Your task to perform on an android device: see creations saved in the google photos Image 0: 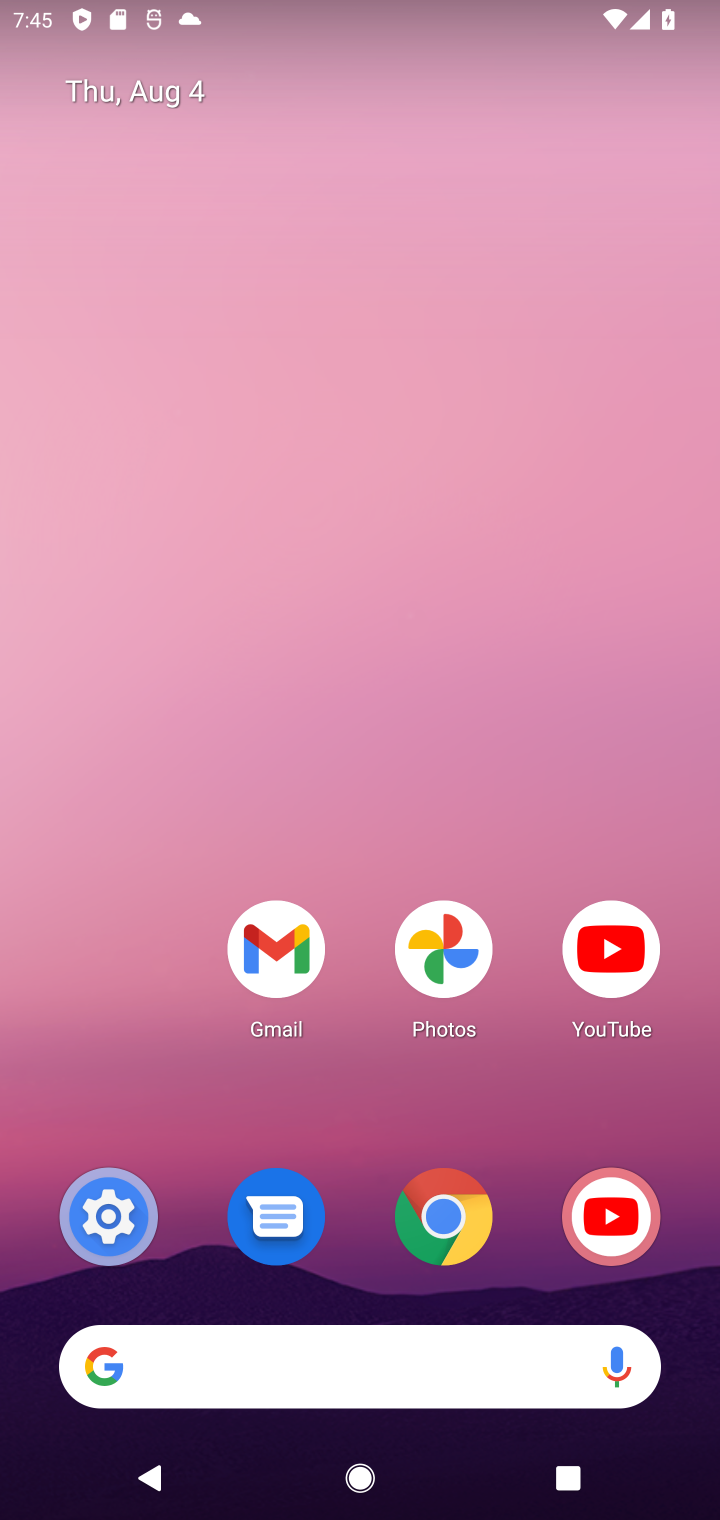
Step 0: drag from (364, 876) to (359, 19)
Your task to perform on an android device: see creations saved in the google photos Image 1: 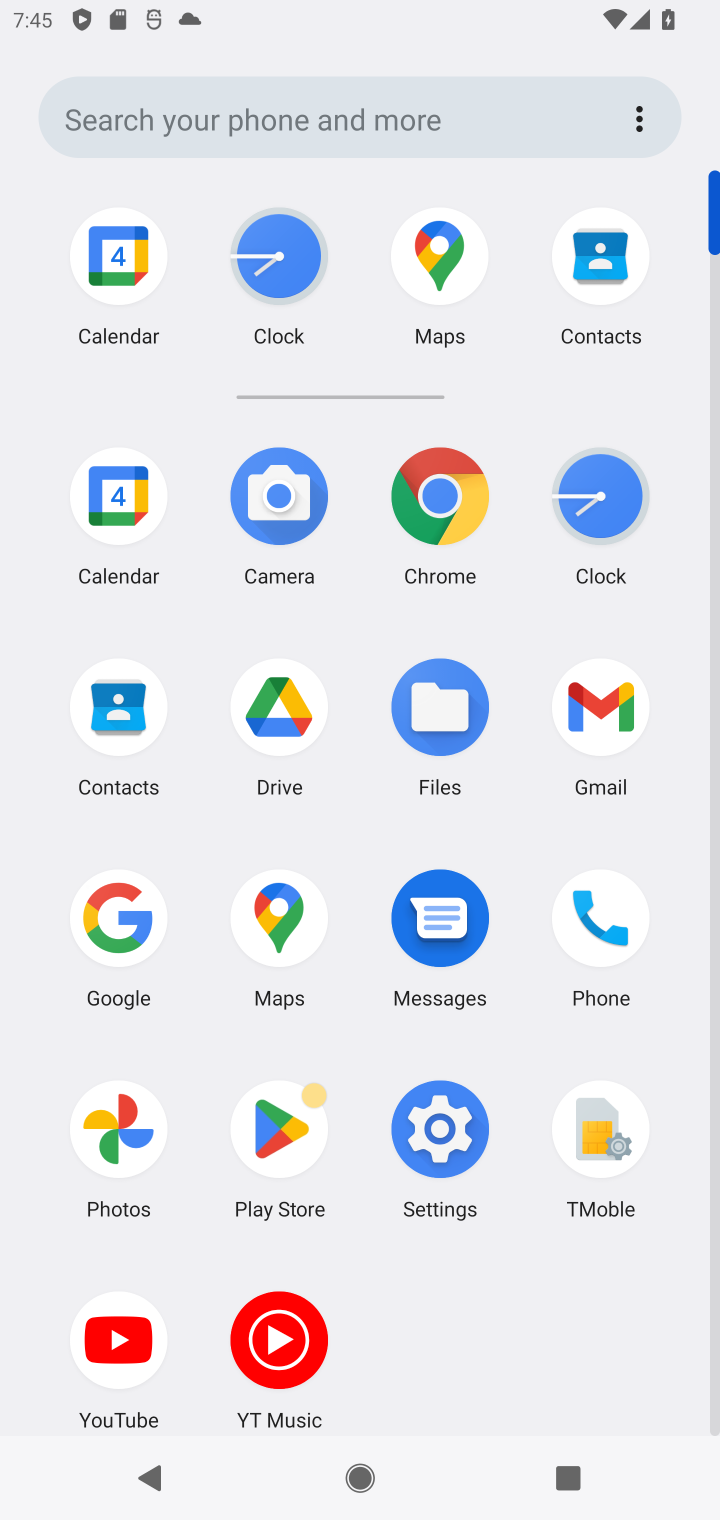
Step 1: click (123, 1131)
Your task to perform on an android device: see creations saved in the google photos Image 2: 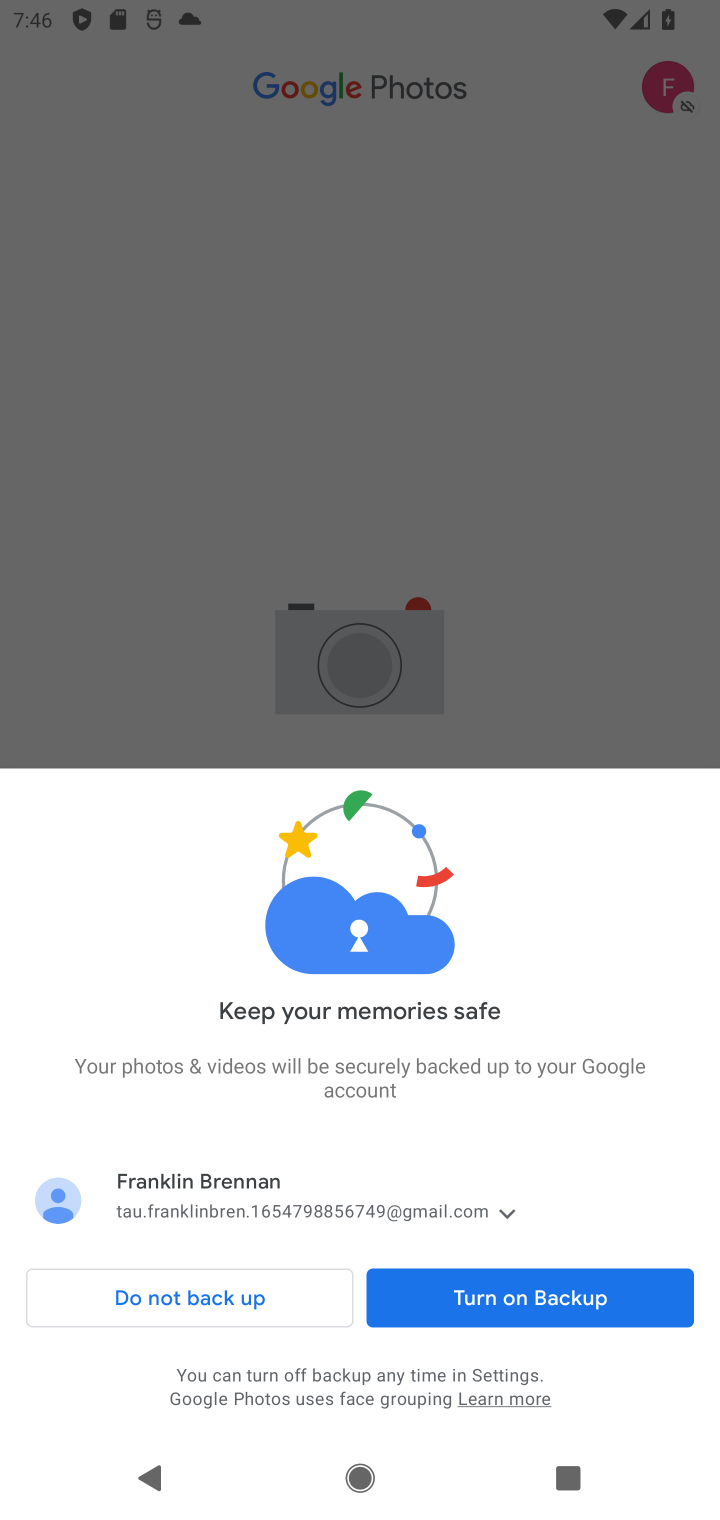
Step 2: press home button
Your task to perform on an android device: see creations saved in the google photos Image 3: 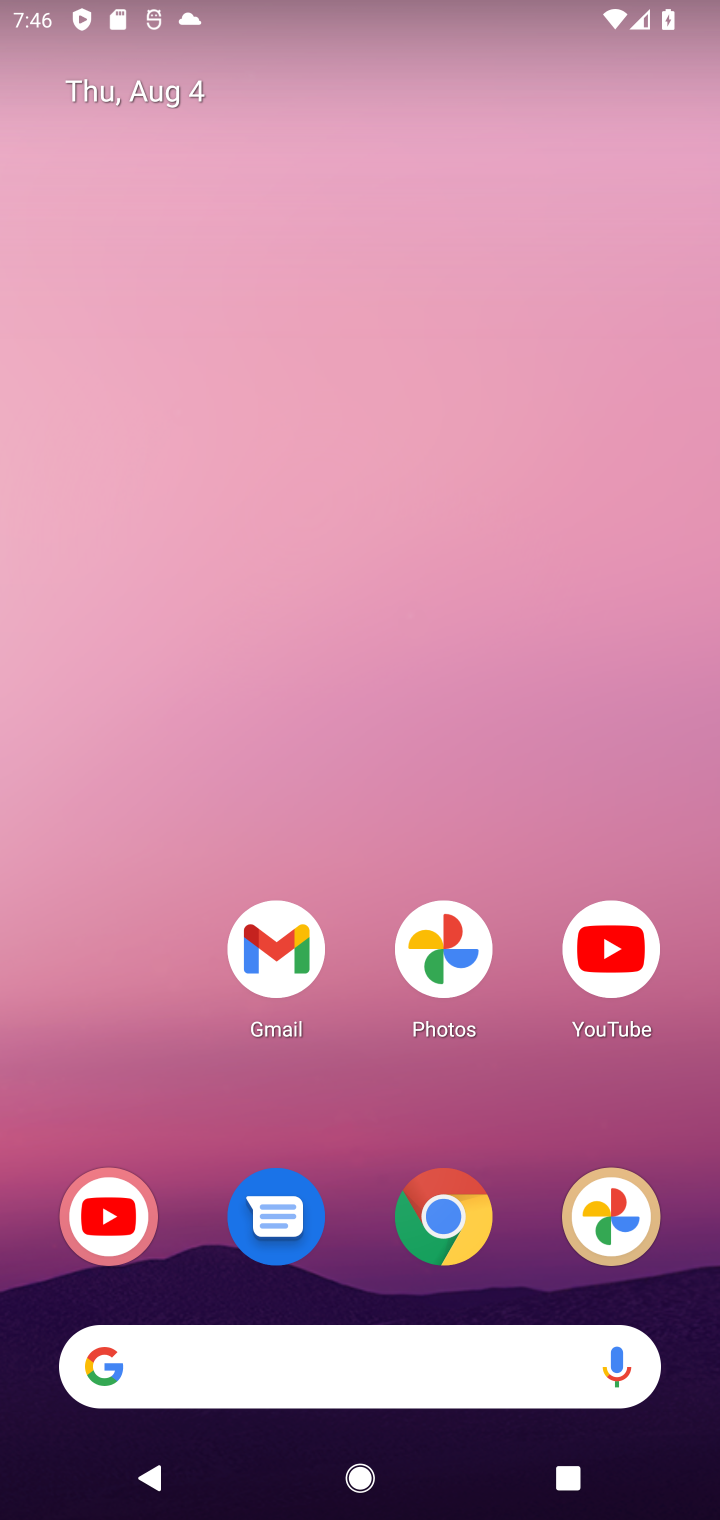
Step 3: drag from (336, 1303) to (329, 146)
Your task to perform on an android device: see creations saved in the google photos Image 4: 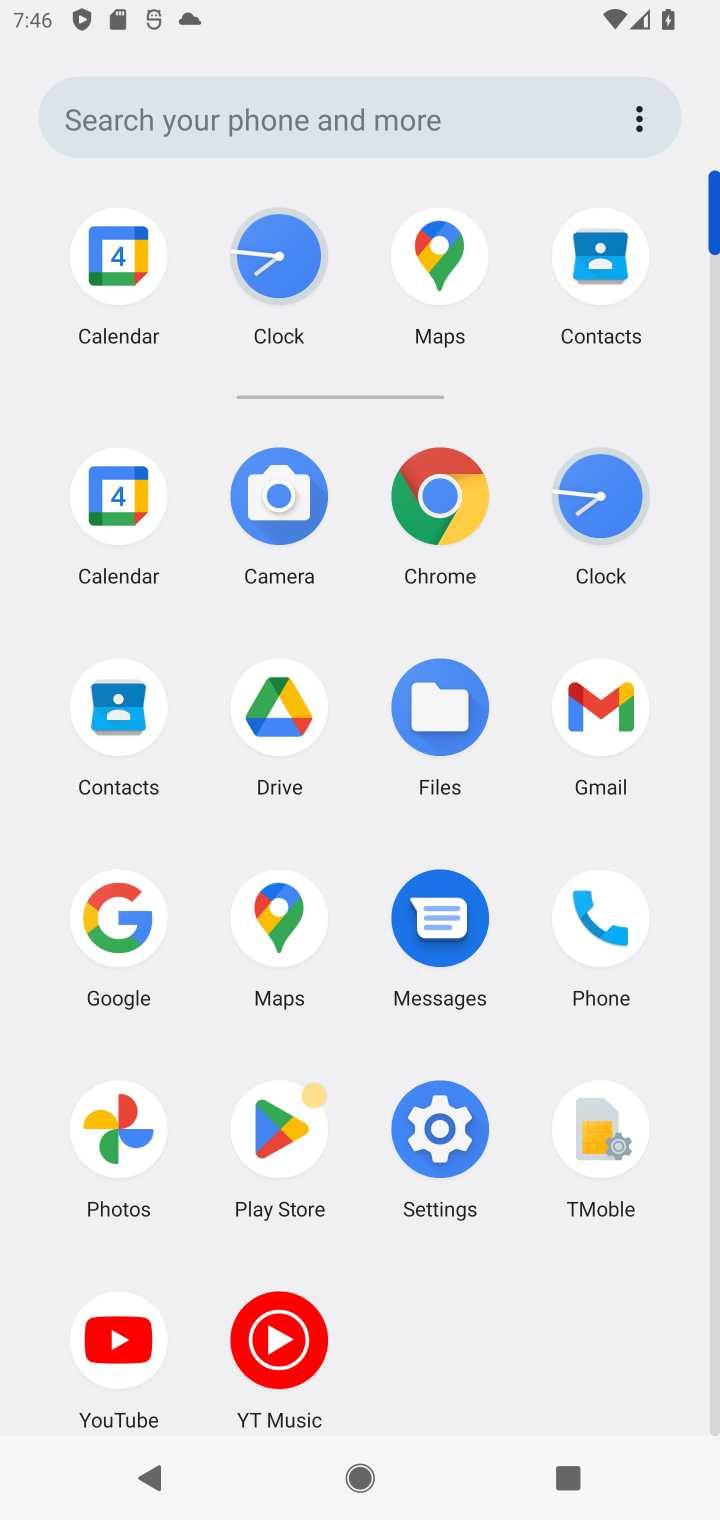
Step 4: click (126, 1128)
Your task to perform on an android device: see creations saved in the google photos Image 5: 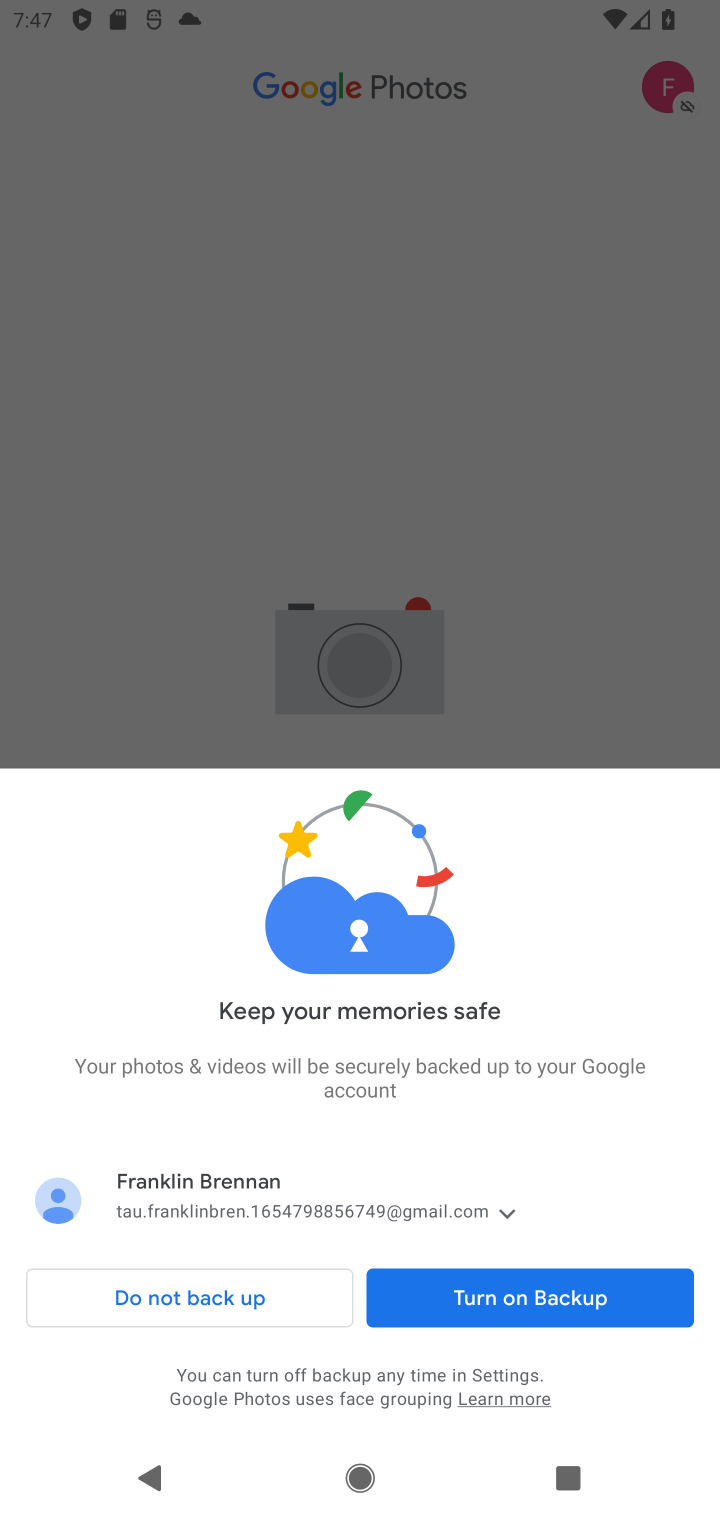
Step 5: click (194, 1301)
Your task to perform on an android device: see creations saved in the google photos Image 6: 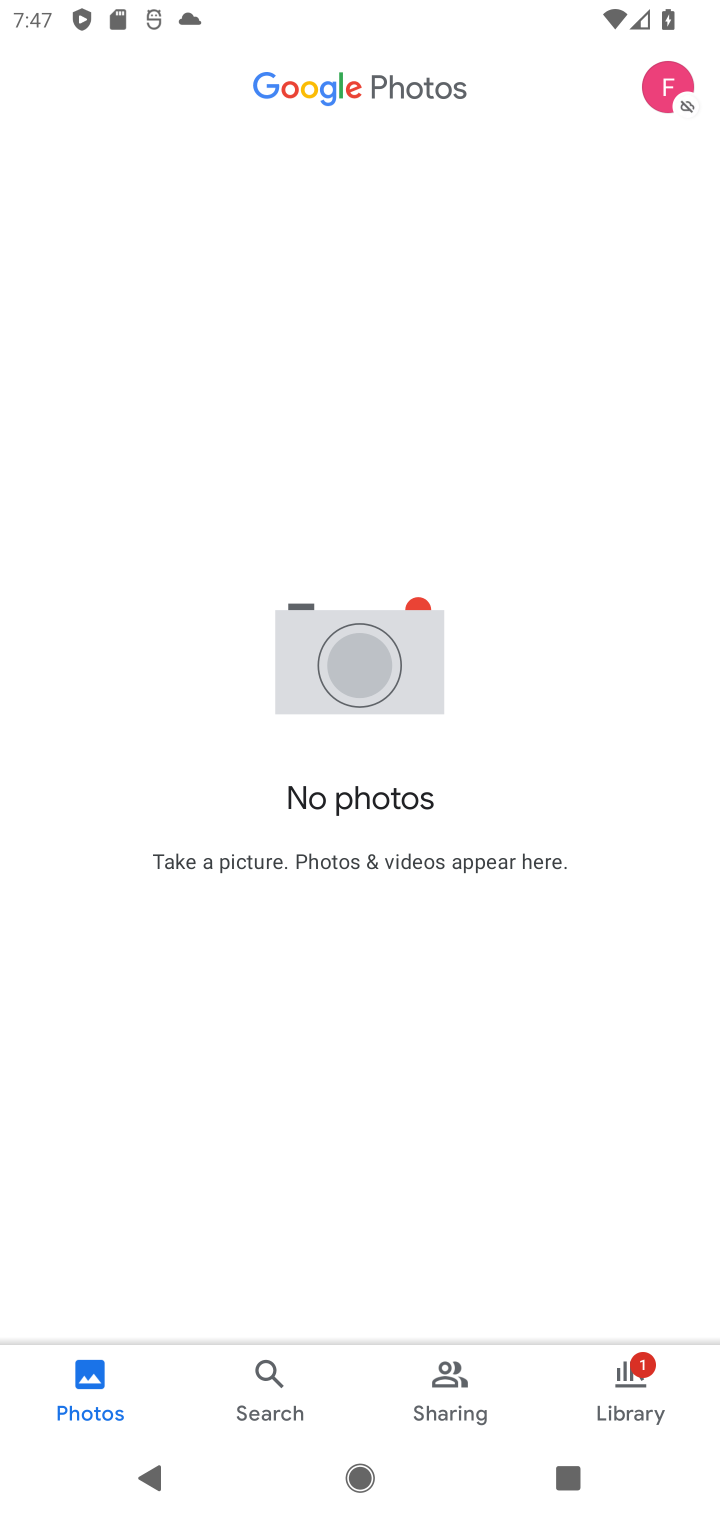
Step 6: click (252, 1360)
Your task to perform on an android device: see creations saved in the google photos Image 7: 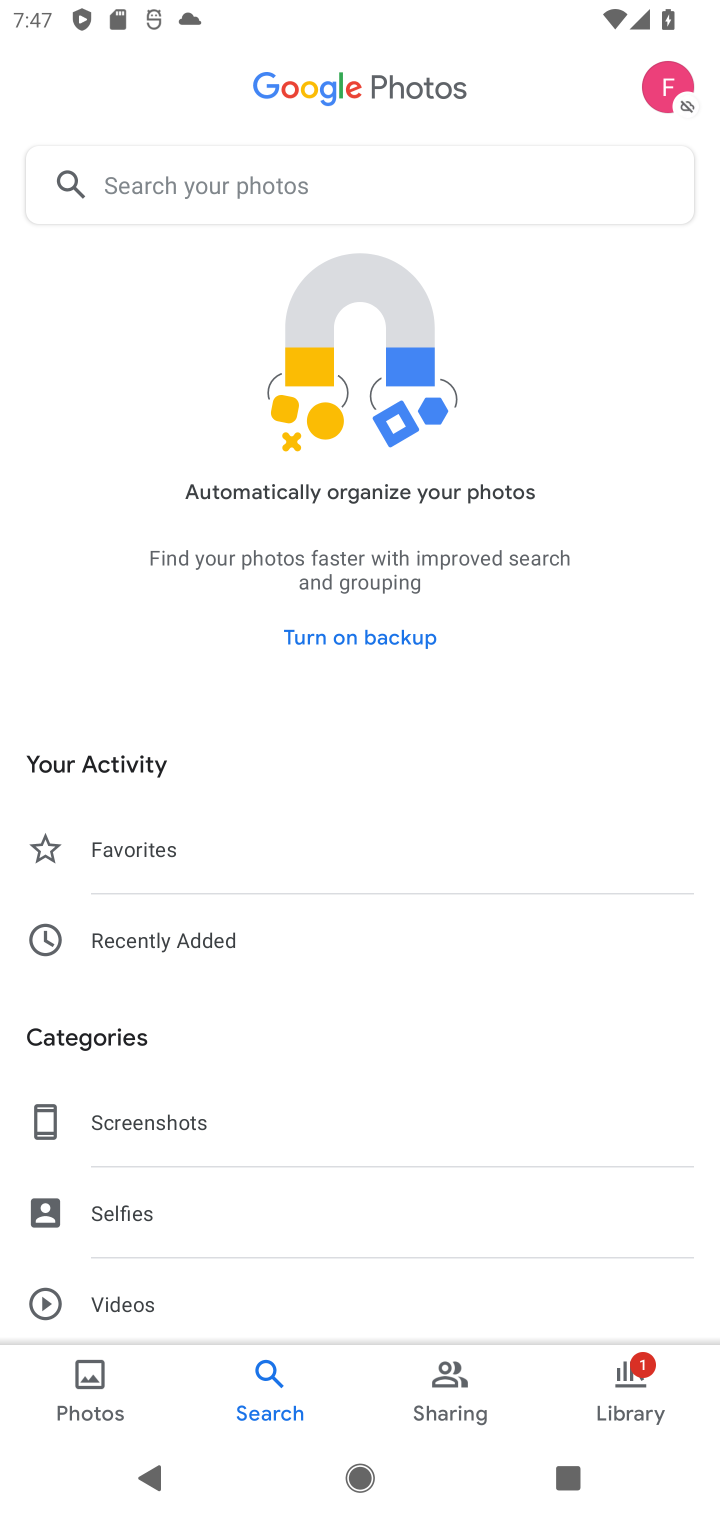
Step 7: click (368, 185)
Your task to perform on an android device: see creations saved in the google photos Image 8: 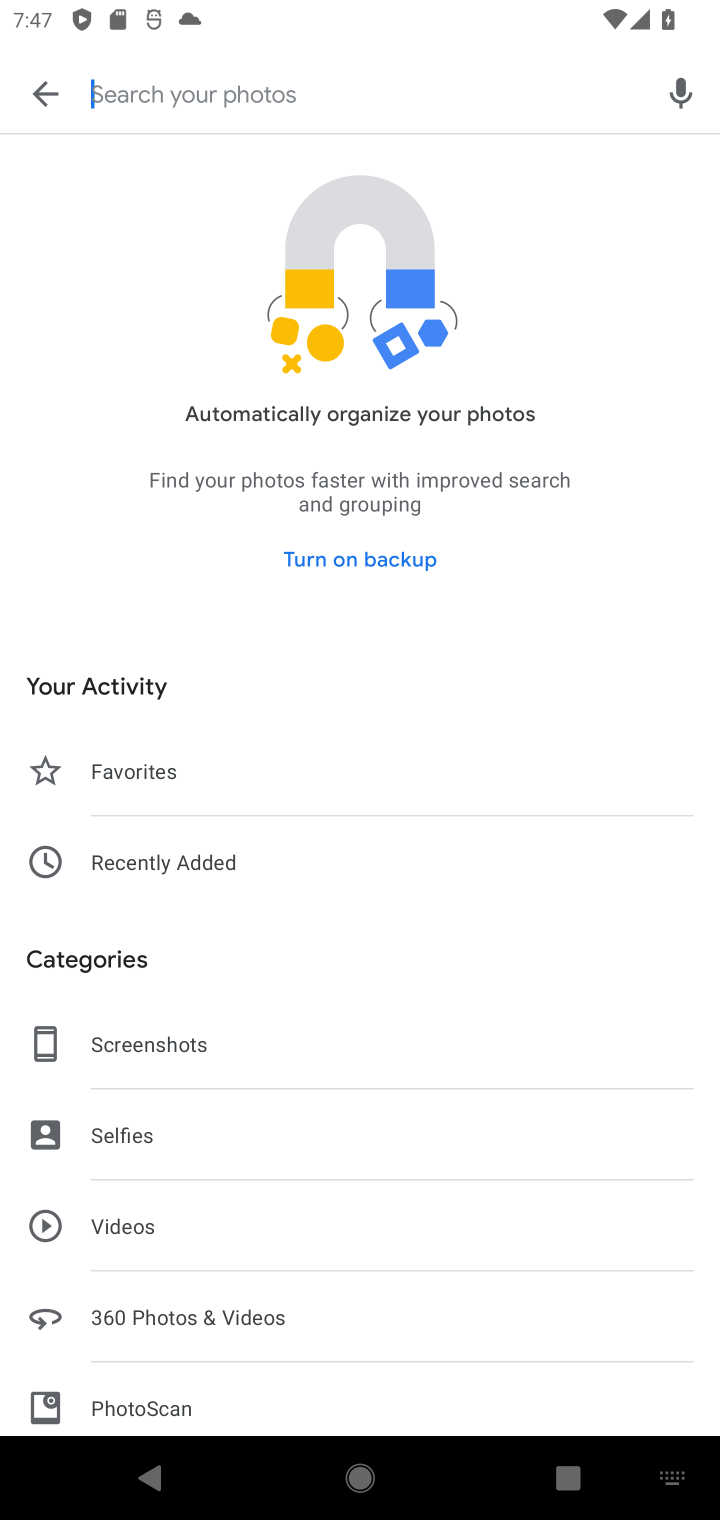
Step 8: drag from (177, 1253) to (177, 554)
Your task to perform on an android device: see creations saved in the google photos Image 9: 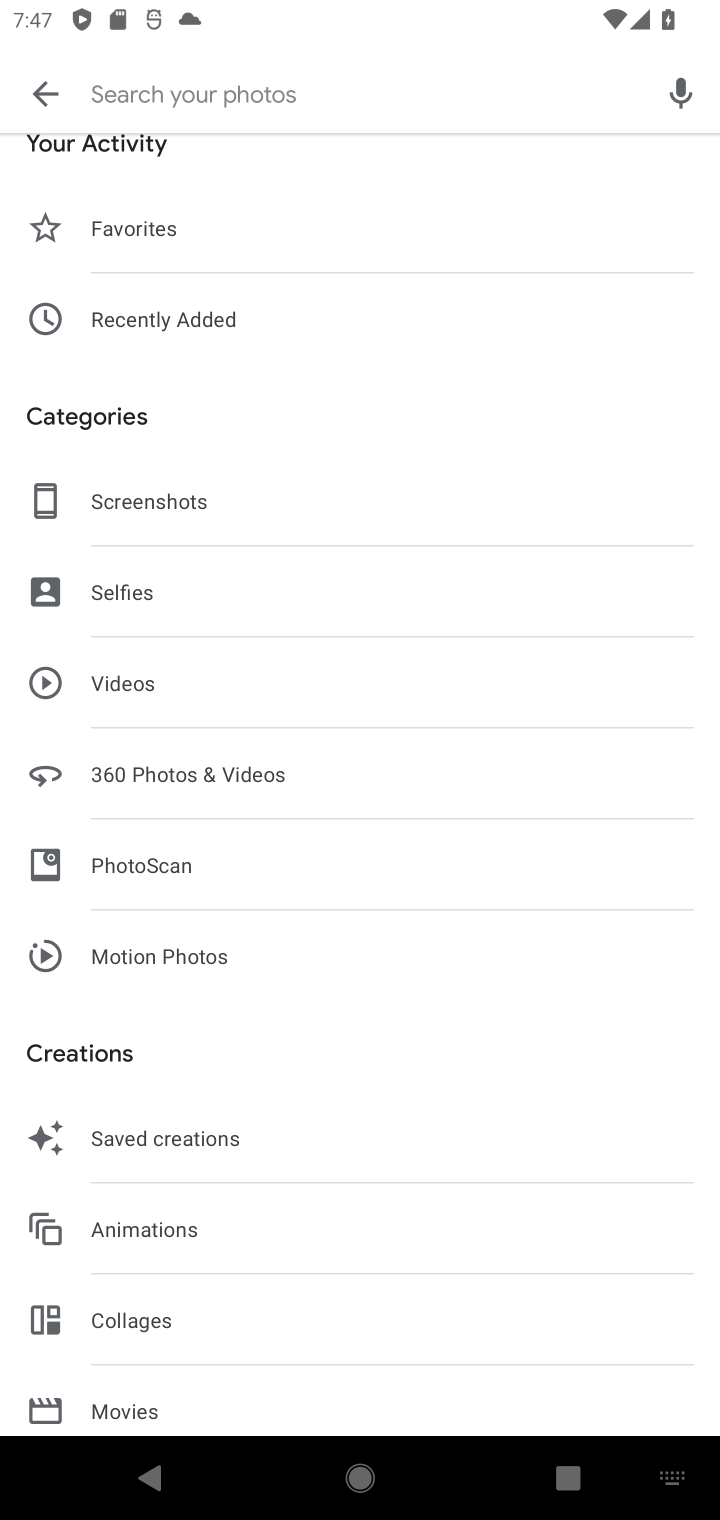
Step 9: drag from (252, 1319) to (255, 894)
Your task to perform on an android device: see creations saved in the google photos Image 10: 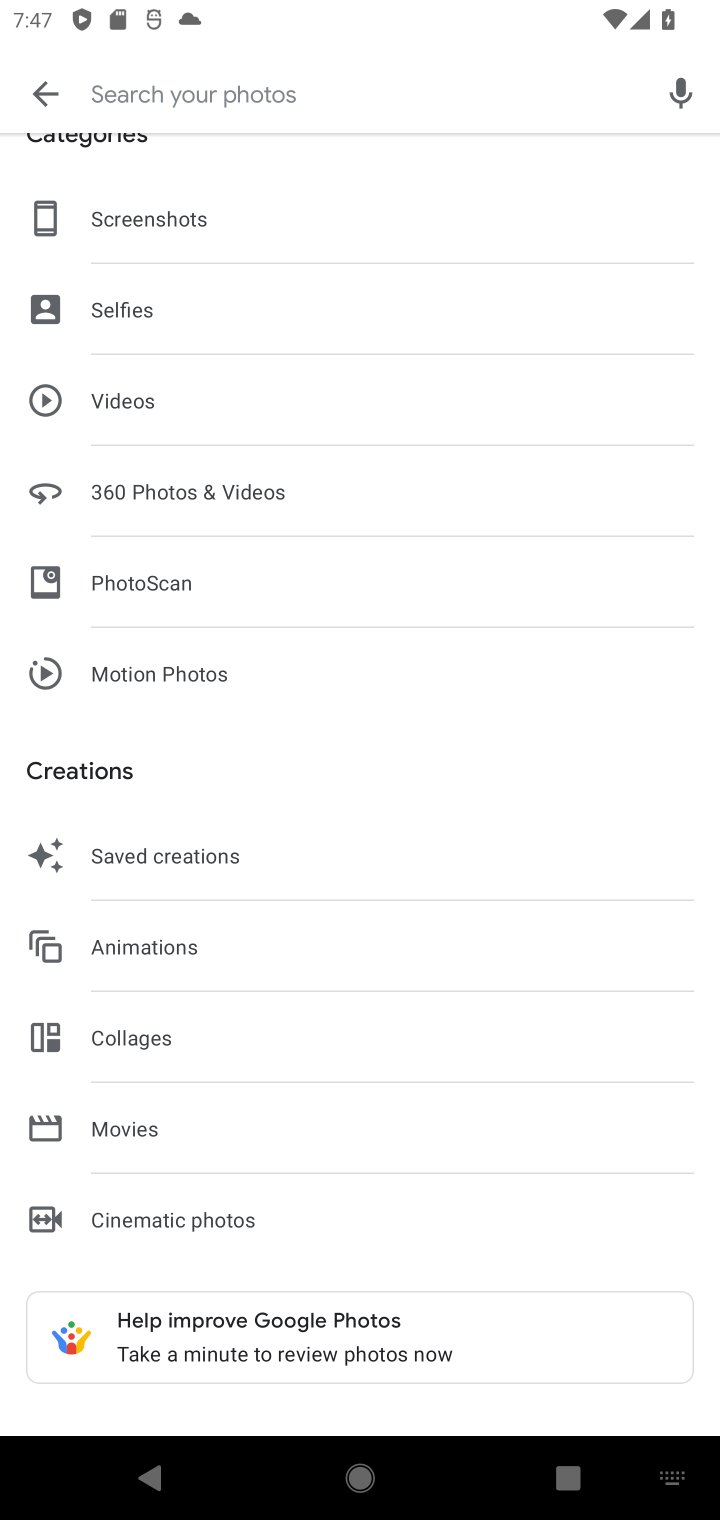
Step 10: click (183, 863)
Your task to perform on an android device: see creations saved in the google photos Image 11: 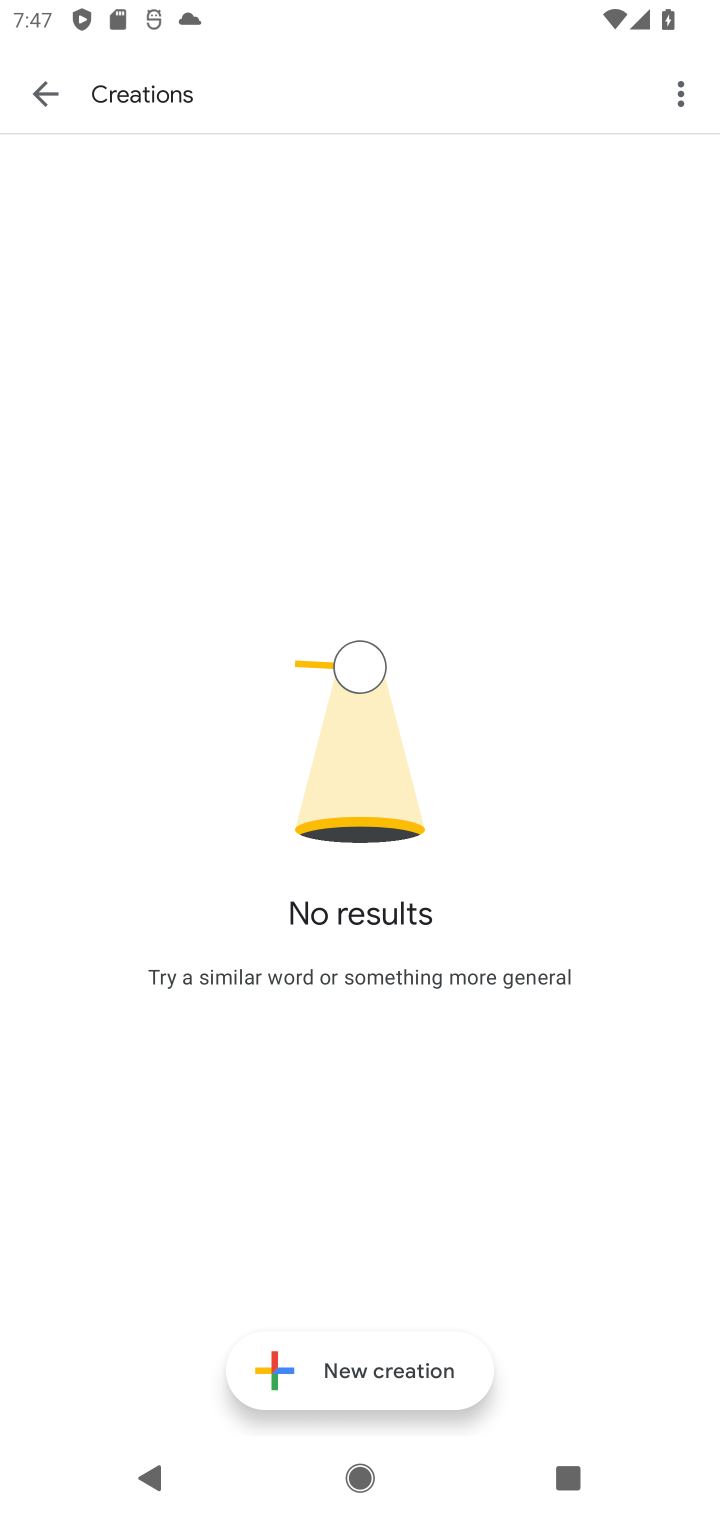
Step 11: task complete